Your task to perform on an android device: Go to Yahoo.com Image 0: 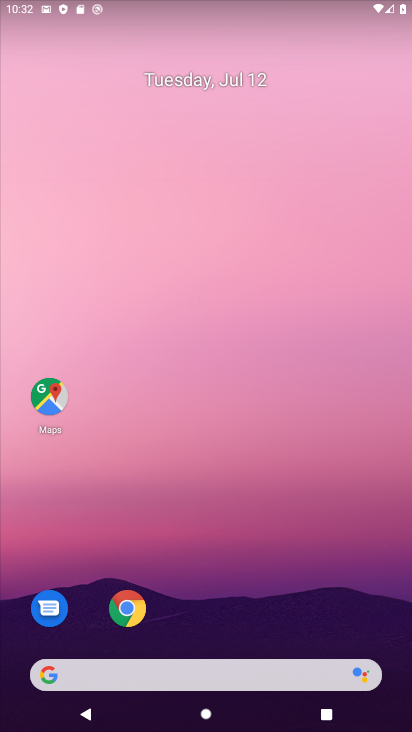
Step 0: click (121, 599)
Your task to perform on an android device: Go to Yahoo.com Image 1: 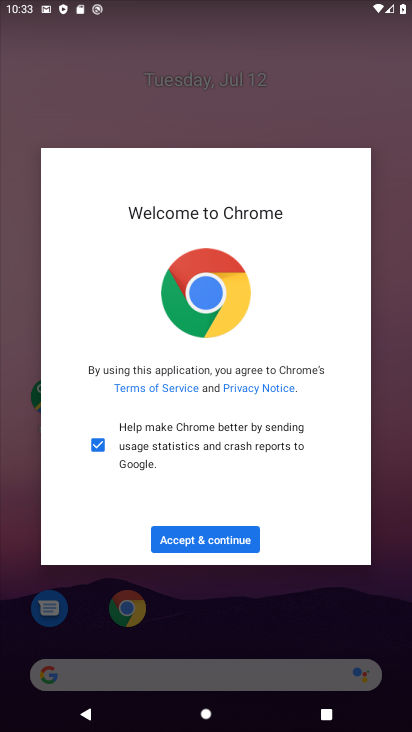
Step 1: click (200, 544)
Your task to perform on an android device: Go to Yahoo.com Image 2: 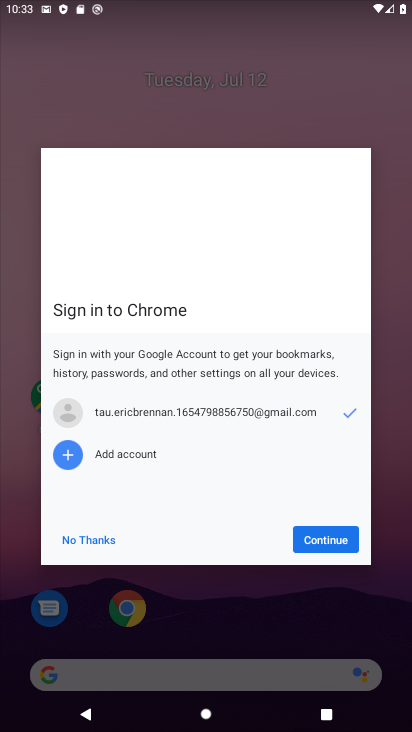
Step 2: click (324, 536)
Your task to perform on an android device: Go to Yahoo.com Image 3: 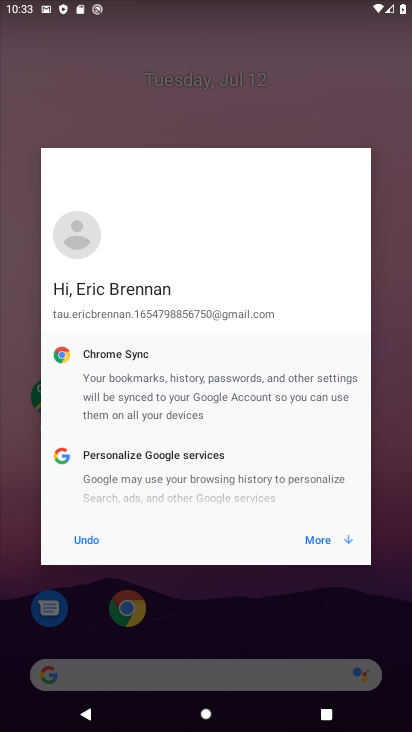
Step 3: click (324, 536)
Your task to perform on an android device: Go to Yahoo.com Image 4: 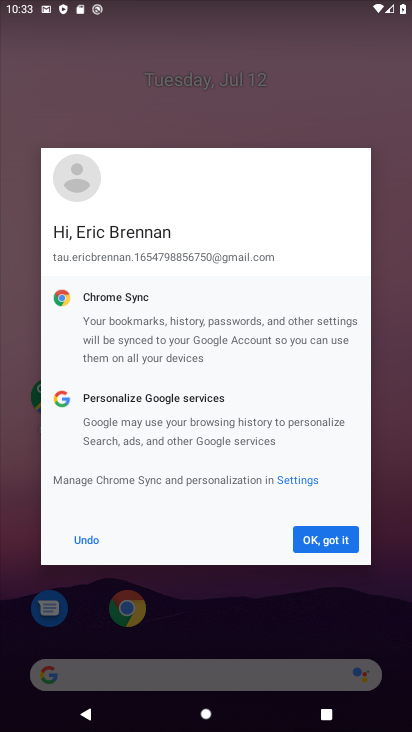
Step 4: click (324, 536)
Your task to perform on an android device: Go to Yahoo.com Image 5: 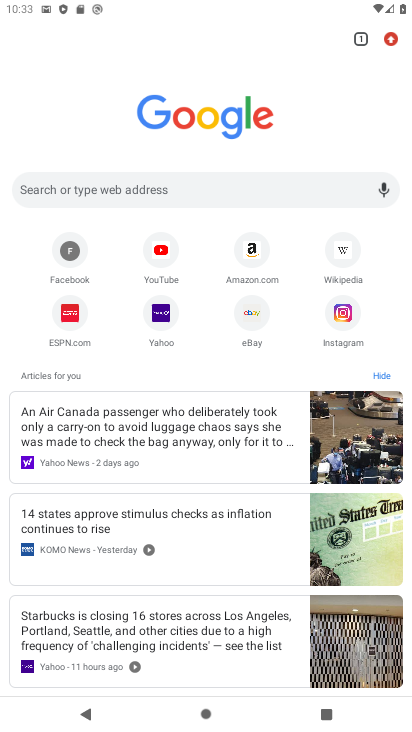
Step 5: click (164, 304)
Your task to perform on an android device: Go to Yahoo.com Image 6: 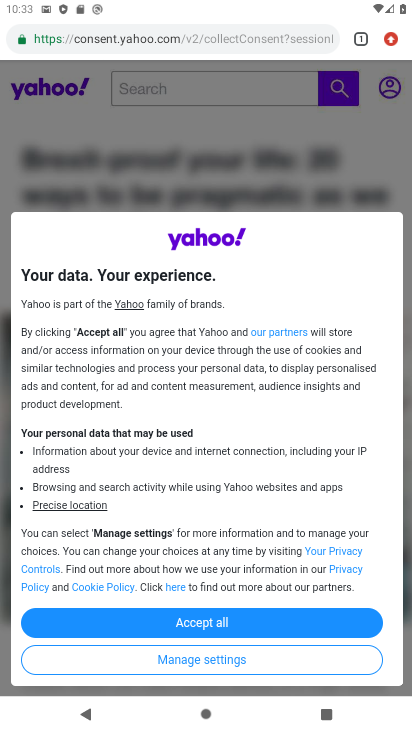
Step 6: task complete